Your task to perform on an android device: Show me productivity apps on the Play Store Image 0: 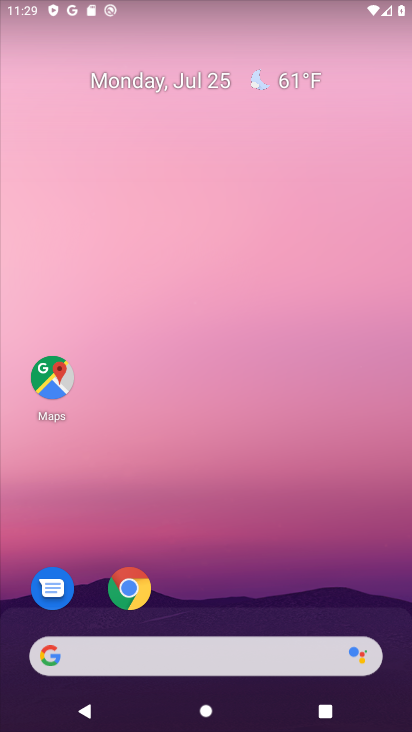
Step 0: drag from (217, 621) to (236, 48)
Your task to perform on an android device: Show me productivity apps on the Play Store Image 1: 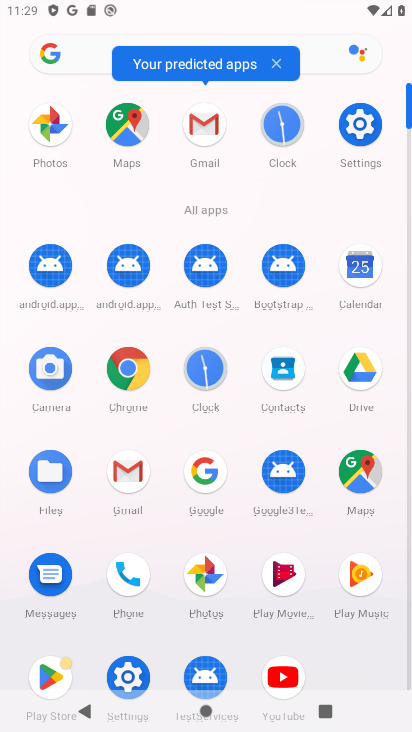
Step 1: click (55, 673)
Your task to perform on an android device: Show me productivity apps on the Play Store Image 2: 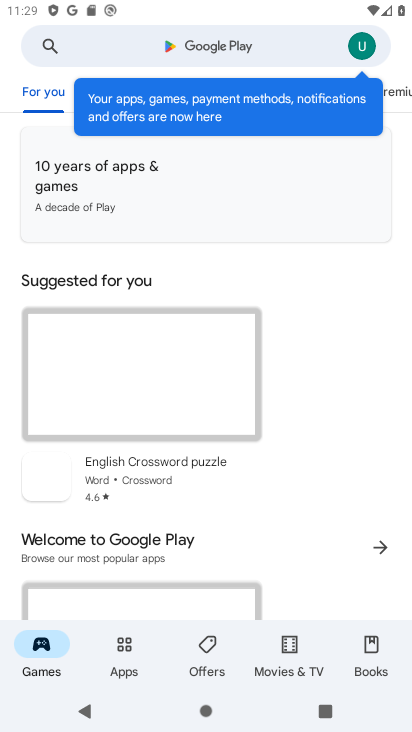
Step 2: click (120, 656)
Your task to perform on an android device: Show me productivity apps on the Play Store Image 3: 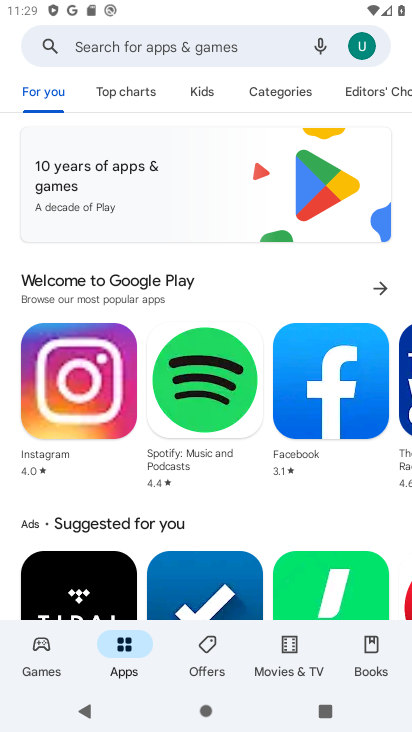
Step 3: click (278, 91)
Your task to perform on an android device: Show me productivity apps on the Play Store Image 4: 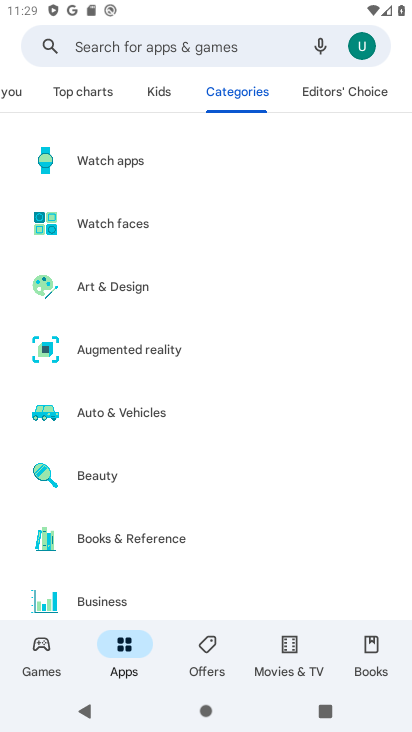
Step 4: drag from (210, 582) to (226, 75)
Your task to perform on an android device: Show me productivity apps on the Play Store Image 5: 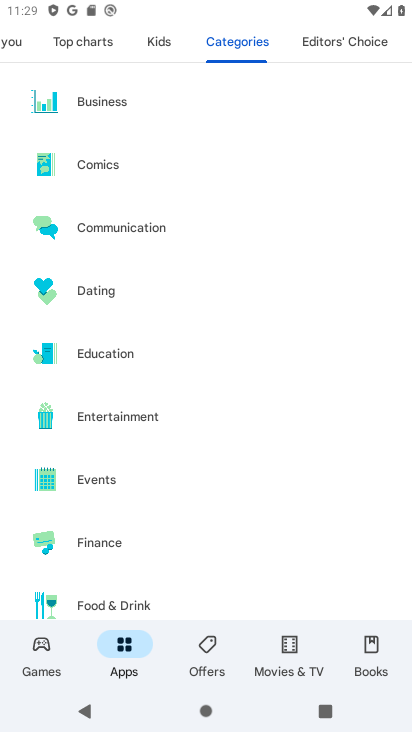
Step 5: drag from (195, 581) to (194, 116)
Your task to perform on an android device: Show me productivity apps on the Play Store Image 6: 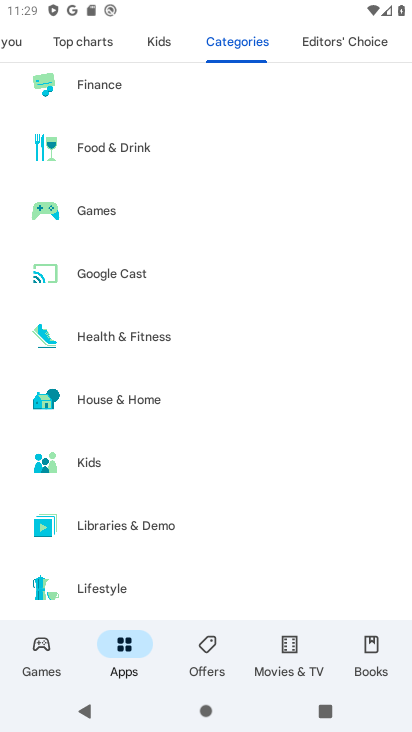
Step 6: drag from (168, 579) to (187, 107)
Your task to perform on an android device: Show me productivity apps on the Play Store Image 7: 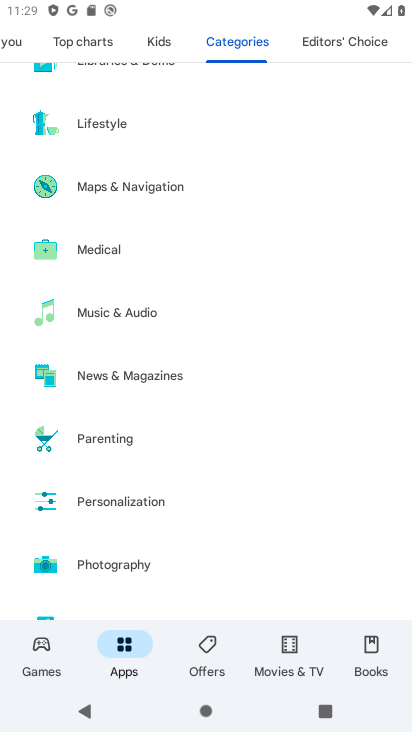
Step 7: drag from (157, 572) to (179, 178)
Your task to perform on an android device: Show me productivity apps on the Play Store Image 8: 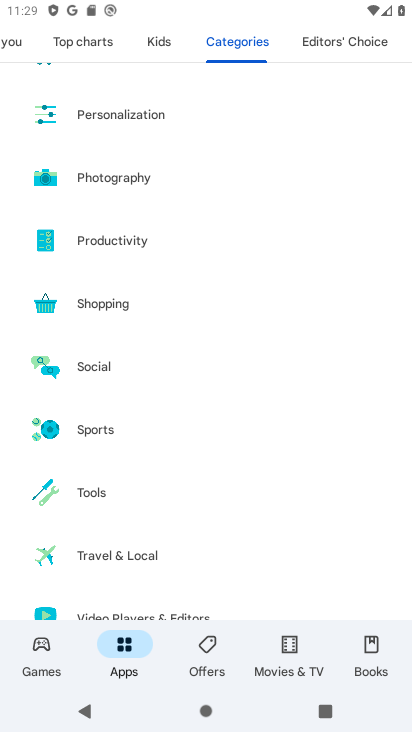
Step 8: click (161, 231)
Your task to perform on an android device: Show me productivity apps on the Play Store Image 9: 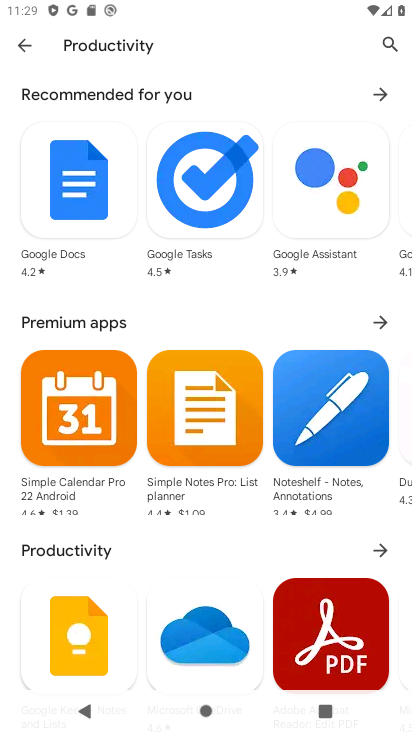
Step 9: click (386, 551)
Your task to perform on an android device: Show me productivity apps on the Play Store Image 10: 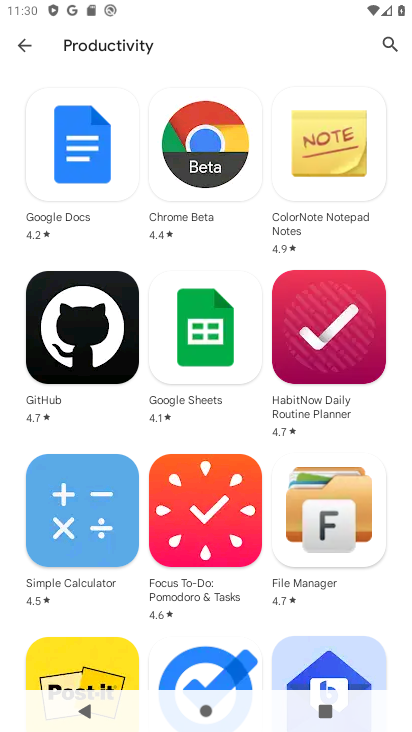
Step 10: task complete